Your task to perform on an android device: turn off improve location accuracy Image 0: 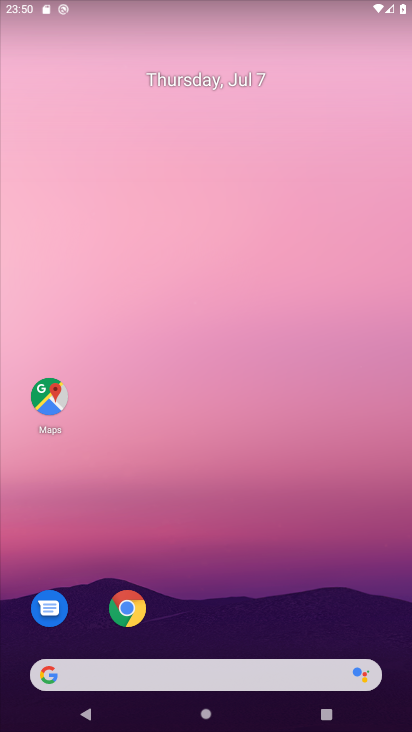
Step 0: drag from (287, 636) to (246, 144)
Your task to perform on an android device: turn off improve location accuracy Image 1: 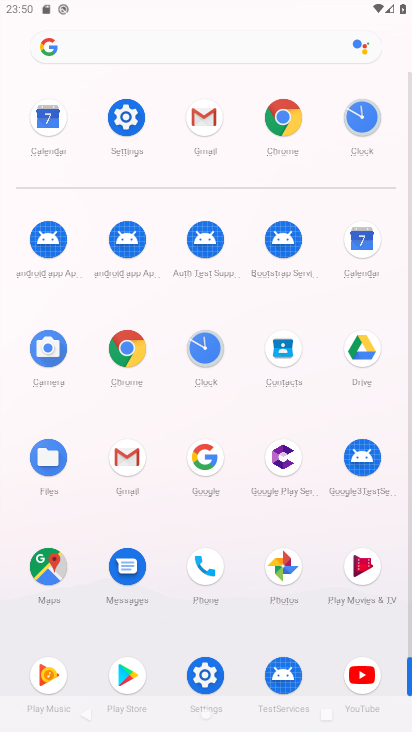
Step 1: click (132, 118)
Your task to perform on an android device: turn off improve location accuracy Image 2: 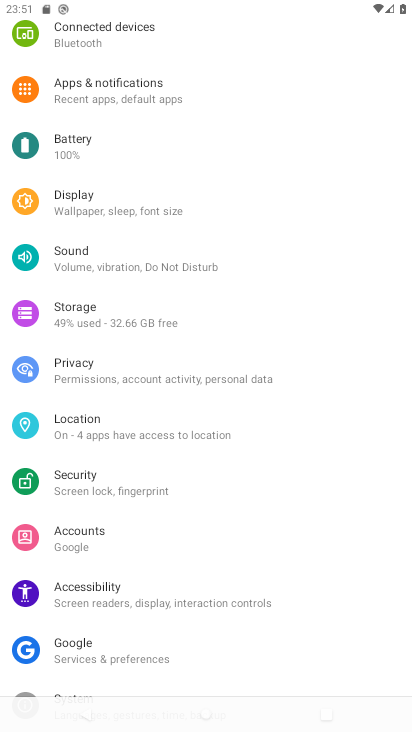
Step 2: click (130, 427)
Your task to perform on an android device: turn off improve location accuracy Image 3: 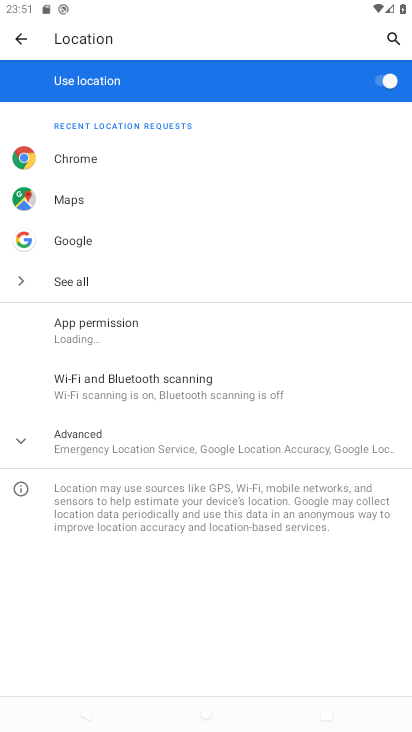
Step 3: click (164, 440)
Your task to perform on an android device: turn off improve location accuracy Image 4: 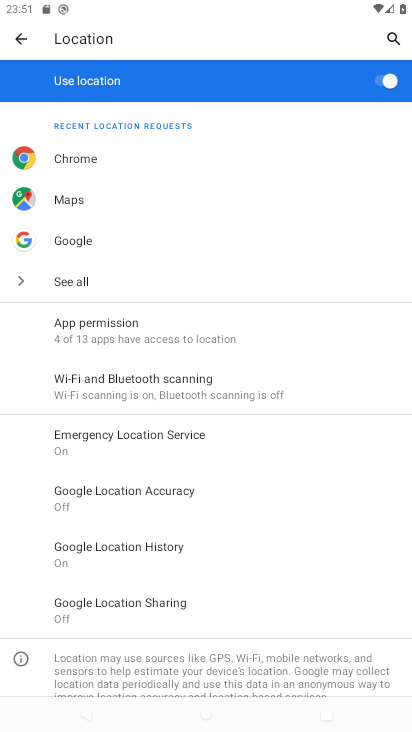
Step 4: click (167, 500)
Your task to perform on an android device: turn off improve location accuracy Image 5: 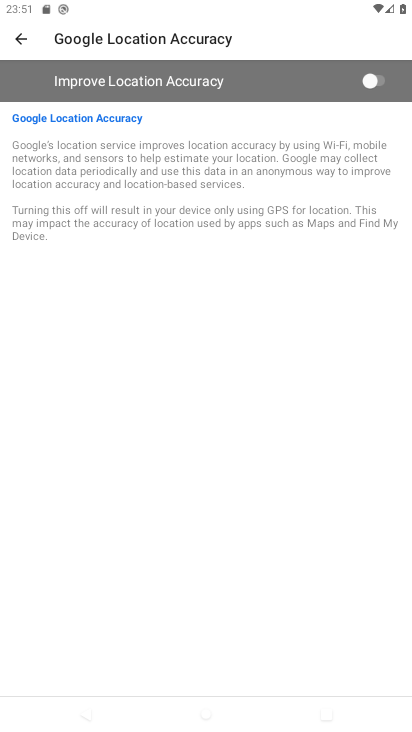
Step 5: task complete